Your task to perform on an android device: Search for pizza restaurants on Maps Image 0: 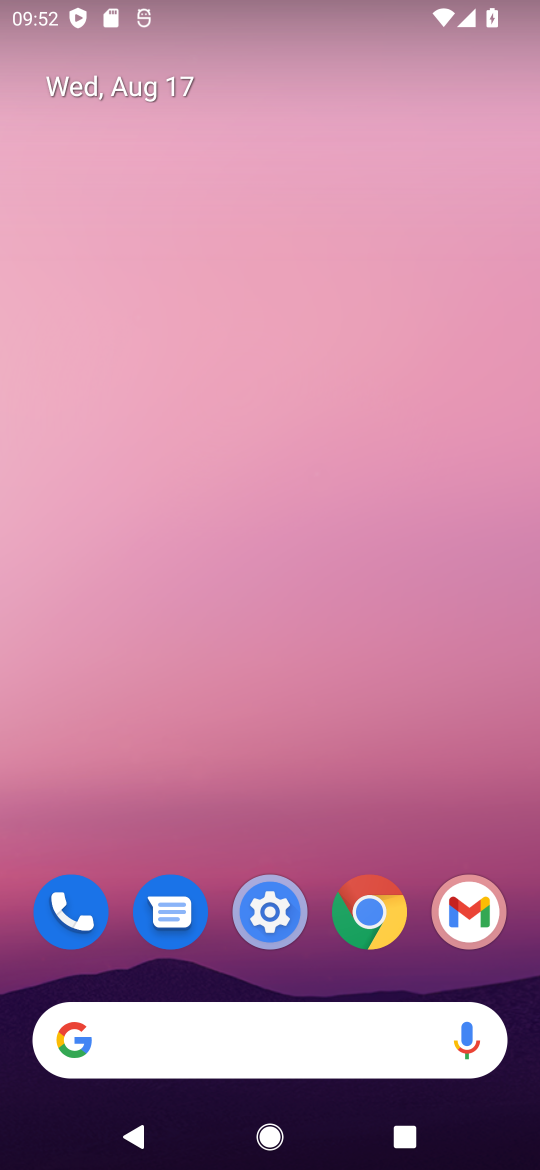
Step 0: drag from (401, 968) to (325, 478)
Your task to perform on an android device: Search for pizza restaurants on Maps Image 1: 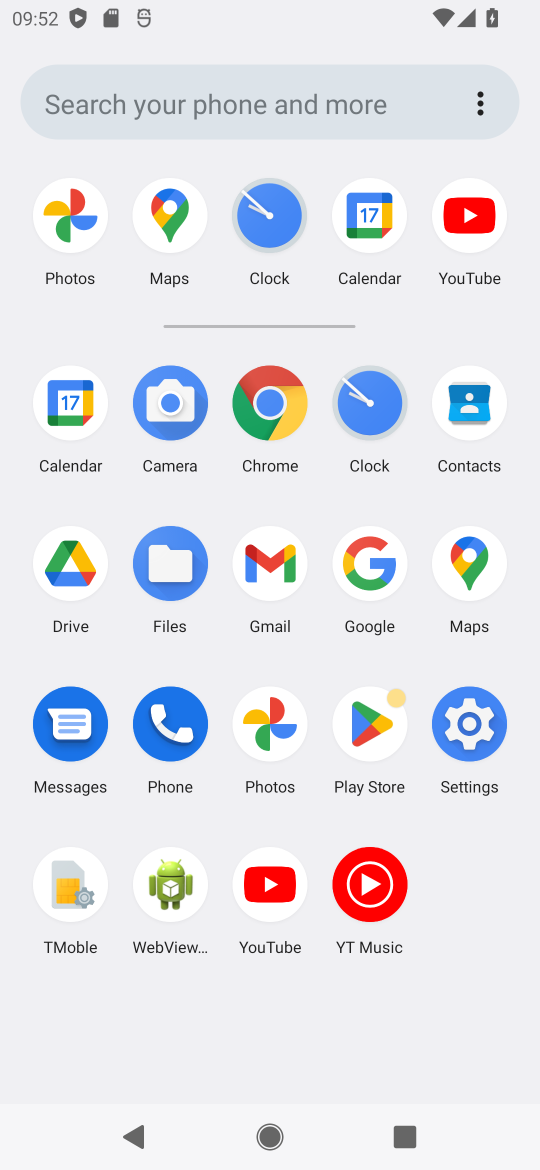
Step 1: click (470, 558)
Your task to perform on an android device: Search for pizza restaurants on Maps Image 2: 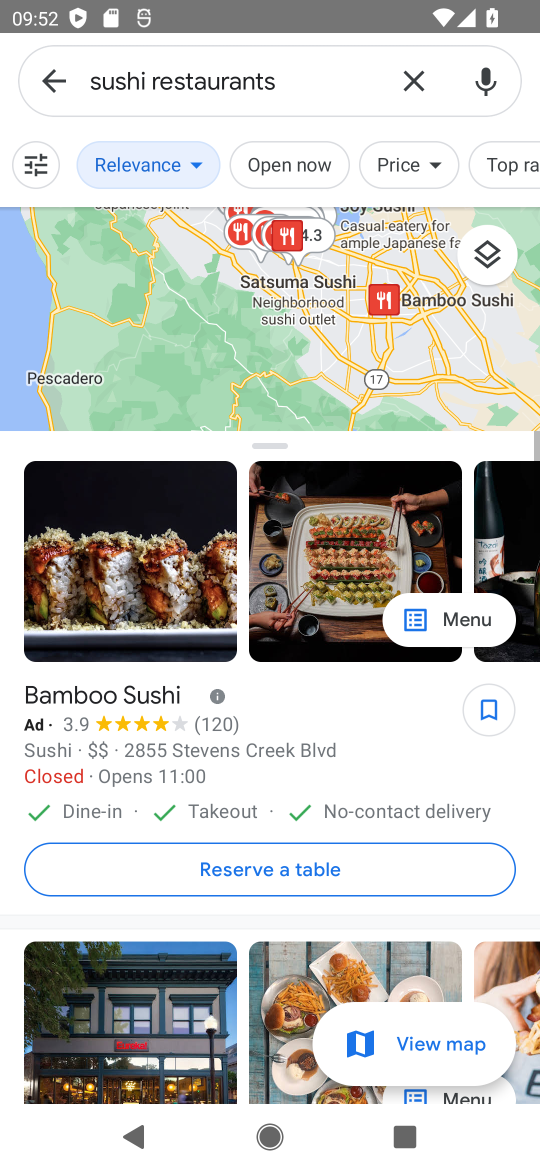
Step 2: click (429, 80)
Your task to perform on an android device: Search for pizza restaurants on Maps Image 3: 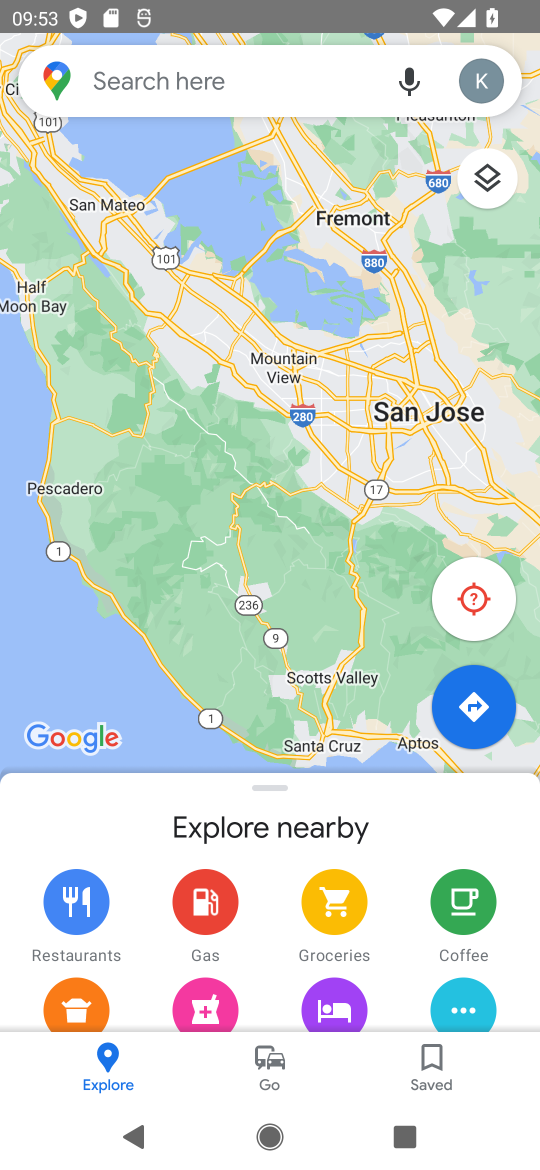
Step 3: click (270, 96)
Your task to perform on an android device: Search for pizza restaurants on Maps Image 4: 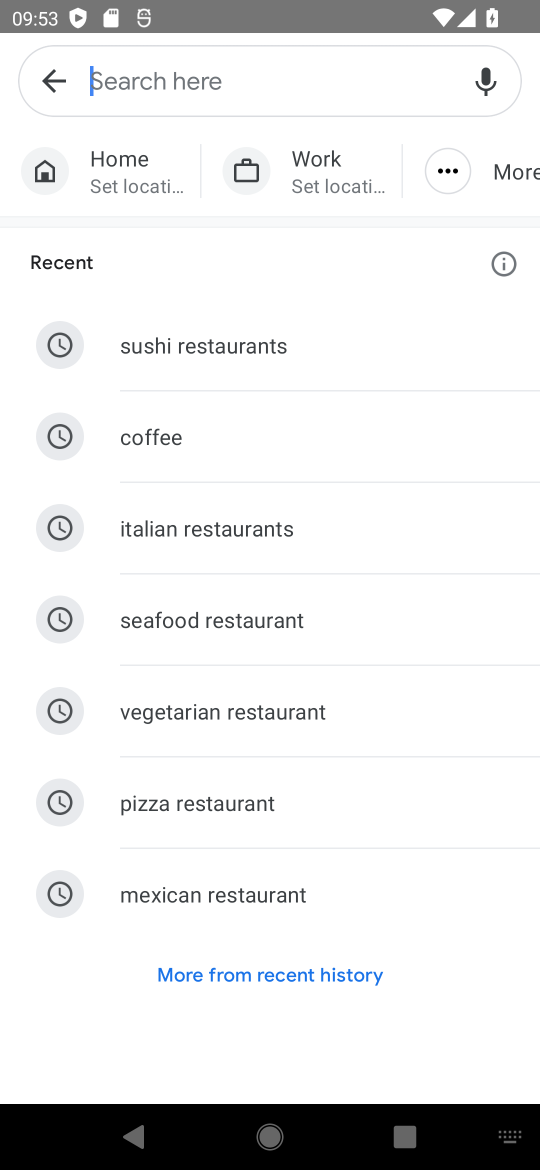
Step 4: click (173, 812)
Your task to perform on an android device: Search for pizza restaurants on Maps Image 5: 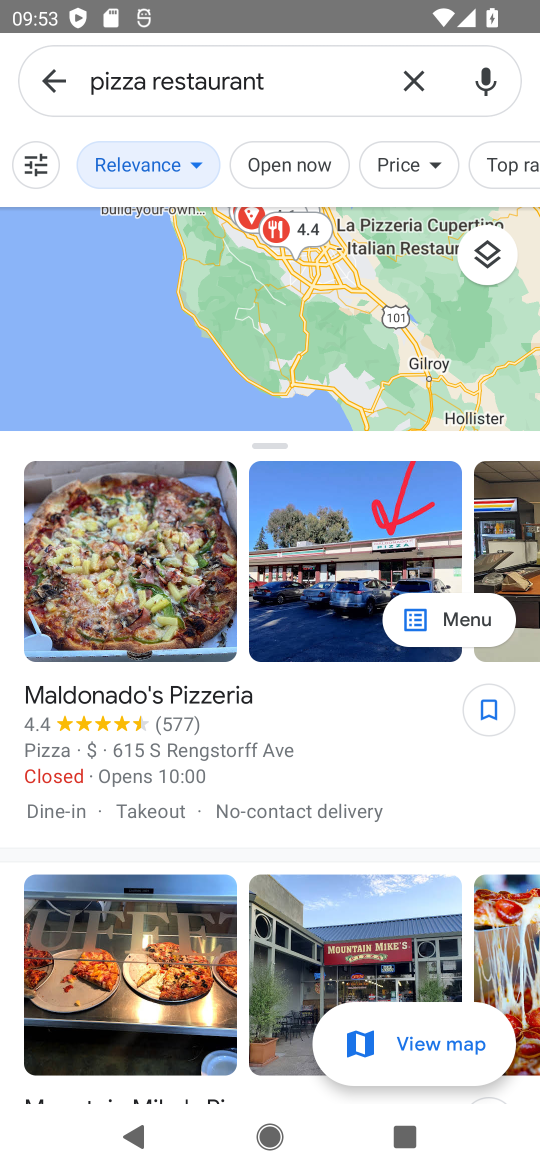
Step 5: task complete